Your task to perform on an android device: Open settings Image 0: 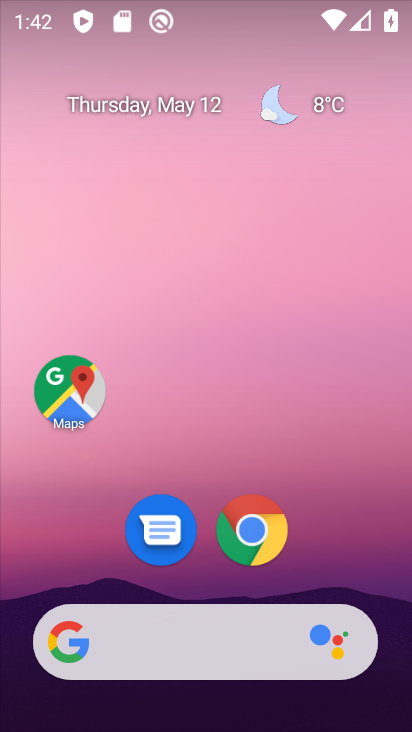
Step 0: drag from (27, 693) to (320, 185)
Your task to perform on an android device: Open settings Image 1: 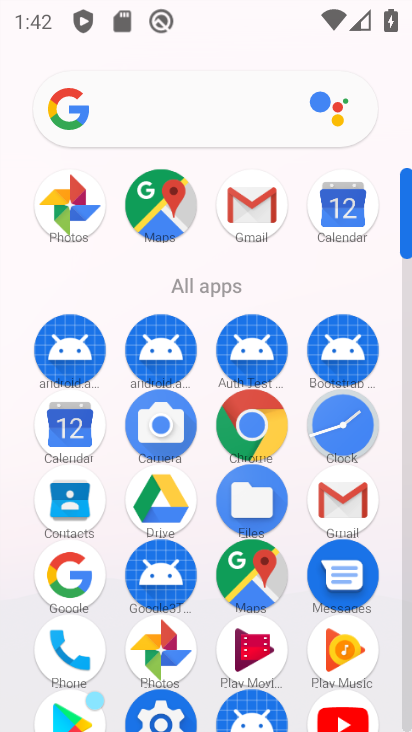
Step 1: click (156, 704)
Your task to perform on an android device: Open settings Image 2: 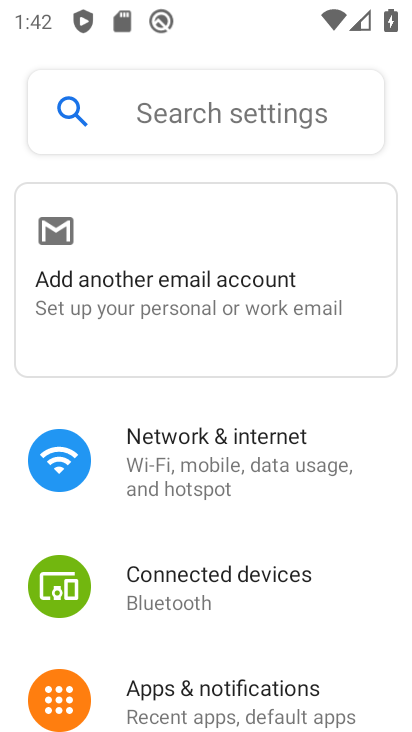
Step 2: task complete